Your task to perform on an android device: Search for sushi restaurants on Maps Image 0: 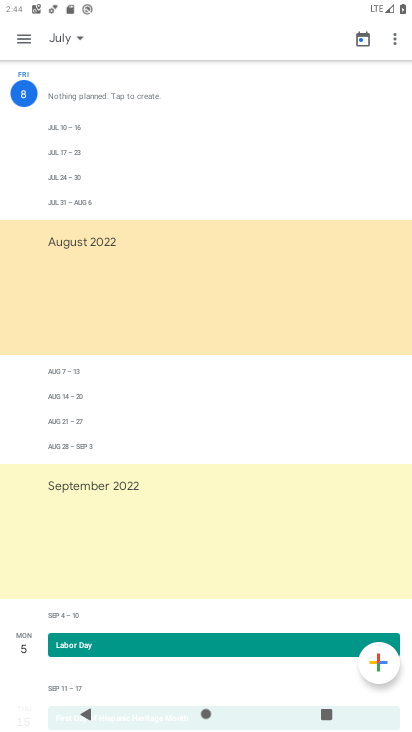
Step 0: press home button
Your task to perform on an android device: Search for sushi restaurants on Maps Image 1: 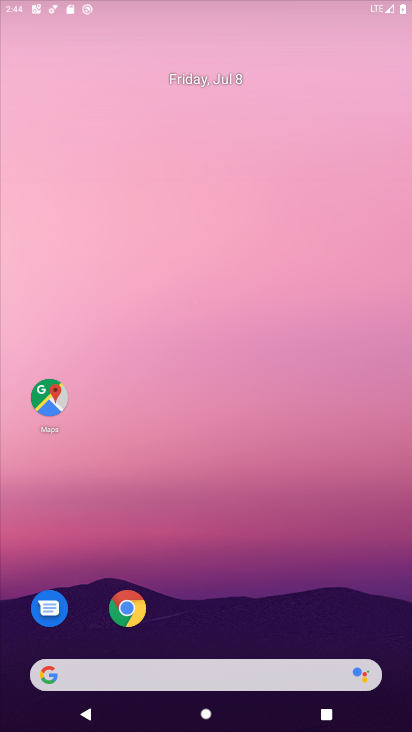
Step 1: drag from (191, 595) to (189, 551)
Your task to perform on an android device: Search for sushi restaurants on Maps Image 2: 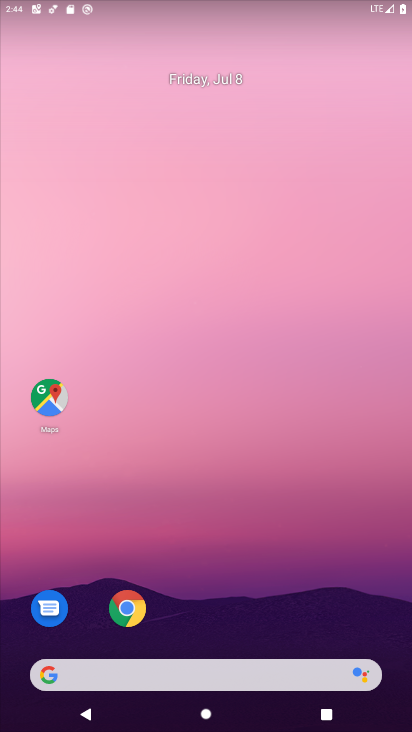
Step 2: click (36, 387)
Your task to perform on an android device: Search for sushi restaurants on Maps Image 3: 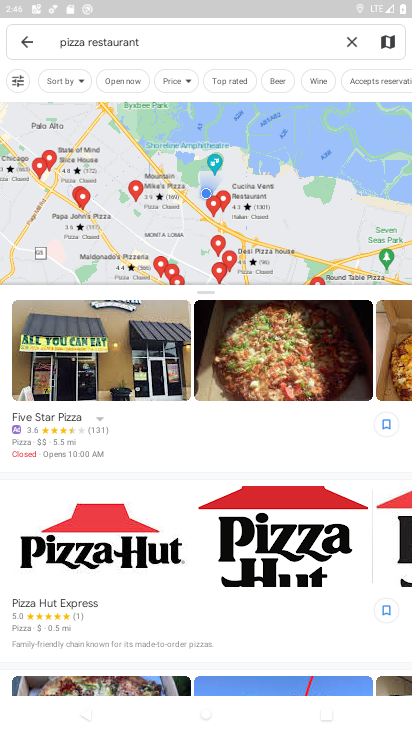
Step 3: click (351, 41)
Your task to perform on an android device: Search for sushi restaurants on Maps Image 4: 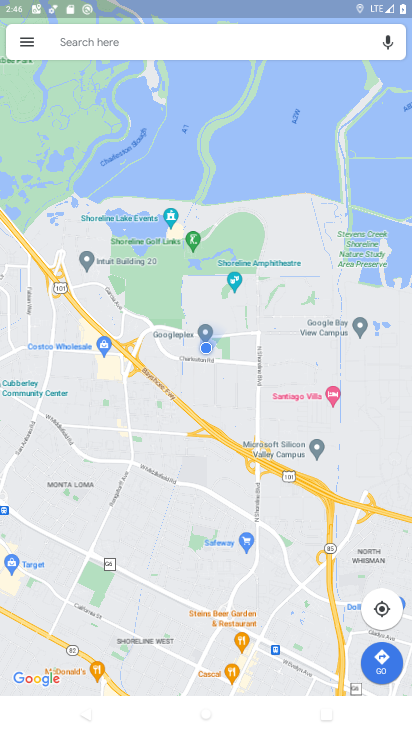
Step 4: click (199, 18)
Your task to perform on an android device: Search for sushi restaurants on Maps Image 5: 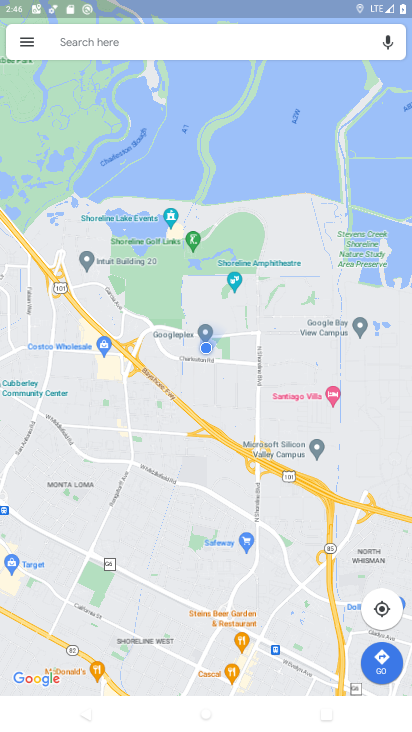
Step 5: click (204, 24)
Your task to perform on an android device: Search for sushi restaurants on Maps Image 6: 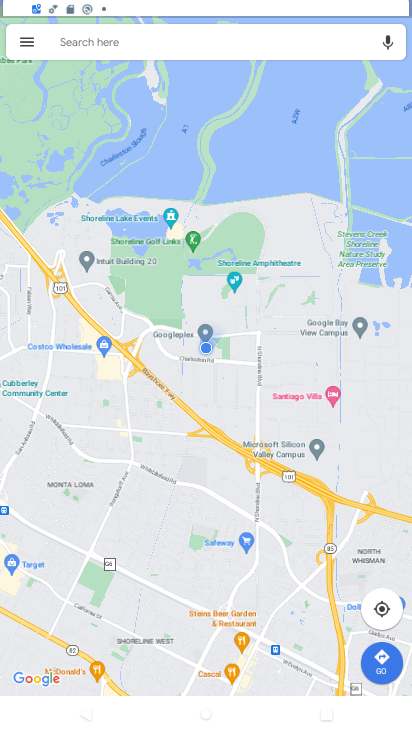
Step 6: click (214, 36)
Your task to perform on an android device: Search for sushi restaurants on Maps Image 7: 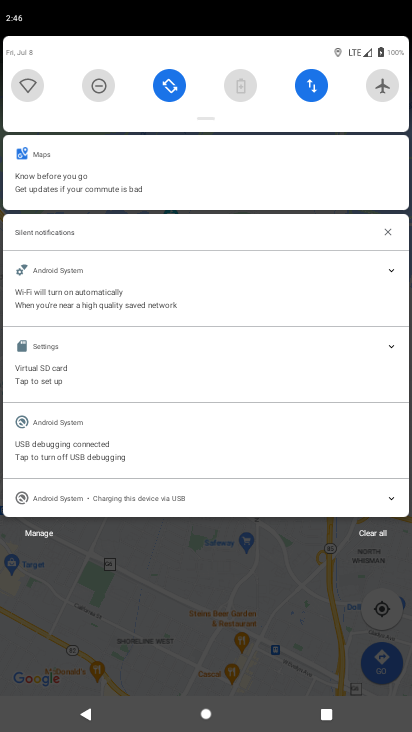
Step 7: type " sushi restaurant "
Your task to perform on an android device: Search for sushi restaurants on Maps Image 8: 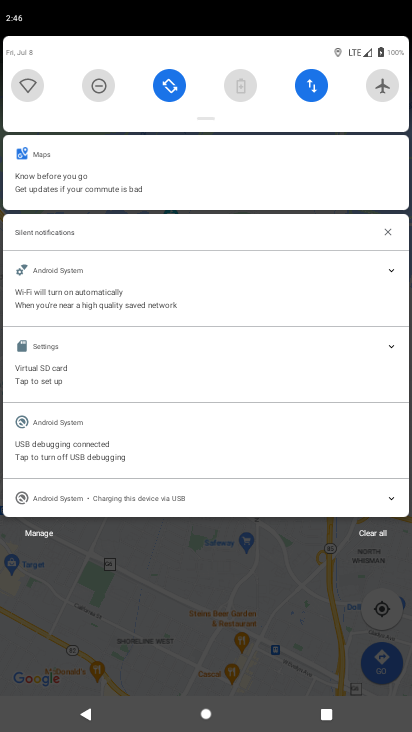
Step 8: click (352, 602)
Your task to perform on an android device: Search for sushi restaurants on Maps Image 9: 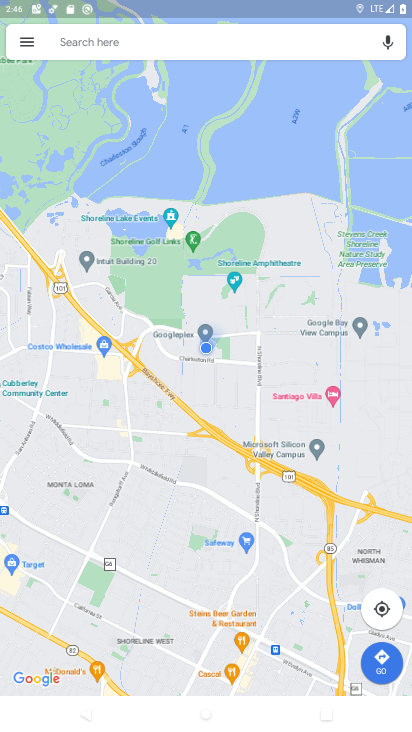
Step 9: click (172, 26)
Your task to perform on an android device: Search for sushi restaurants on Maps Image 10: 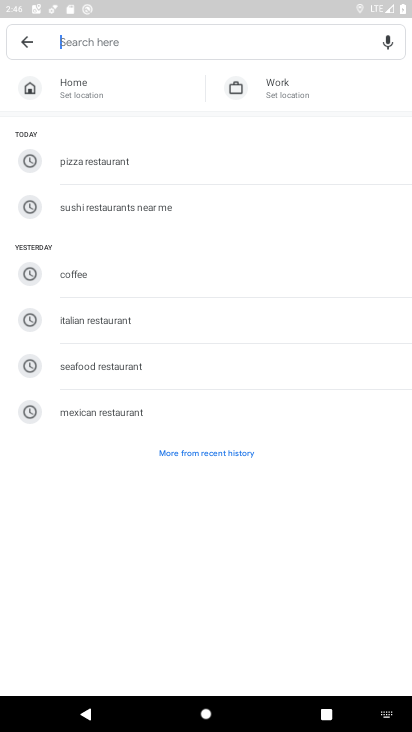
Step 10: click (148, 215)
Your task to perform on an android device: Search for sushi restaurants on Maps Image 11: 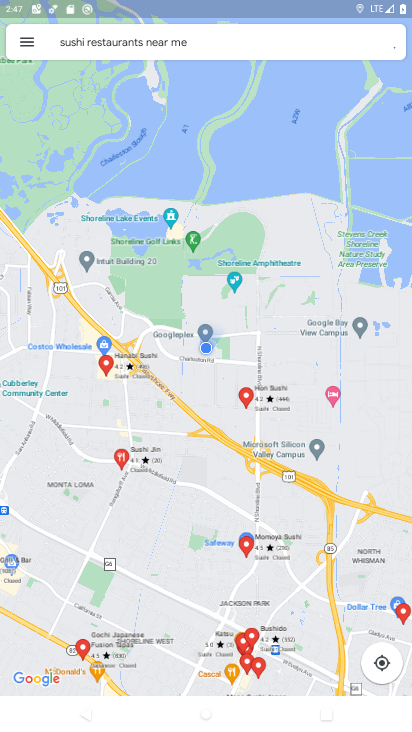
Step 11: task complete